Your task to perform on an android device: Open Chrome and go to settings Image 0: 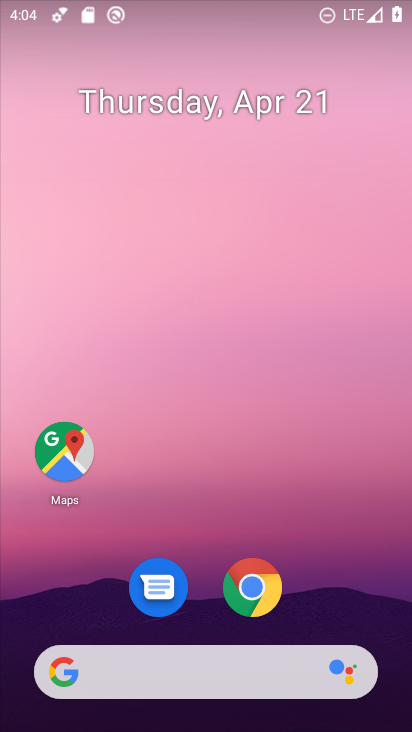
Step 0: click (250, 581)
Your task to perform on an android device: Open Chrome and go to settings Image 1: 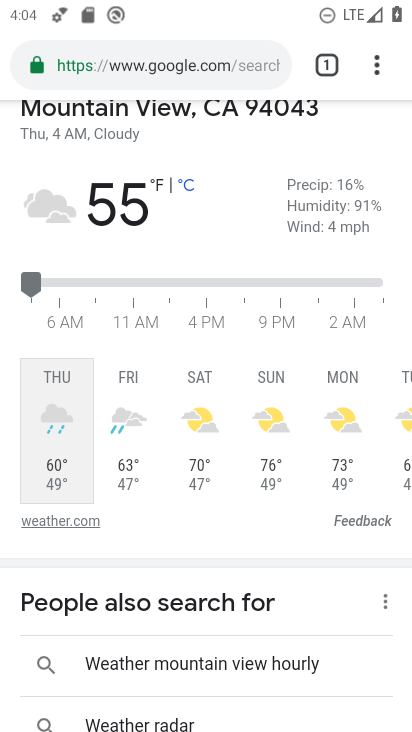
Step 1: click (380, 65)
Your task to perform on an android device: Open Chrome and go to settings Image 2: 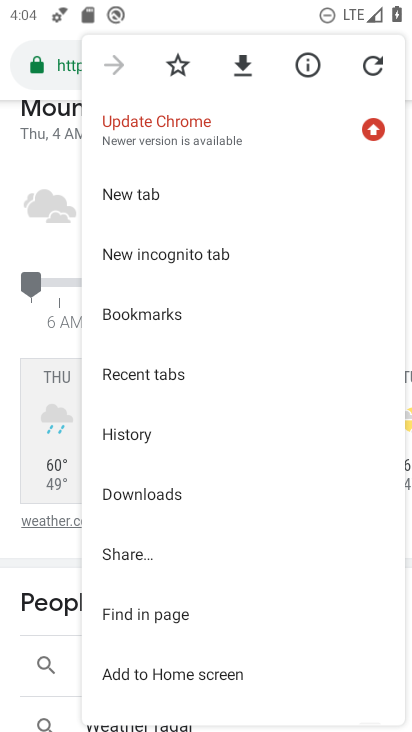
Step 2: drag from (243, 637) to (260, 392)
Your task to perform on an android device: Open Chrome and go to settings Image 3: 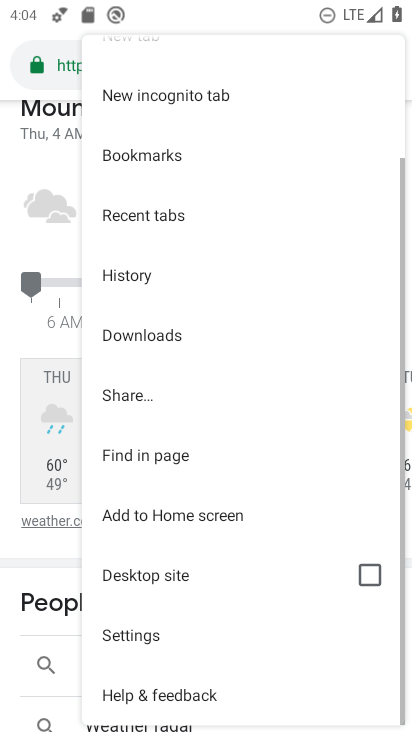
Step 3: click (124, 634)
Your task to perform on an android device: Open Chrome and go to settings Image 4: 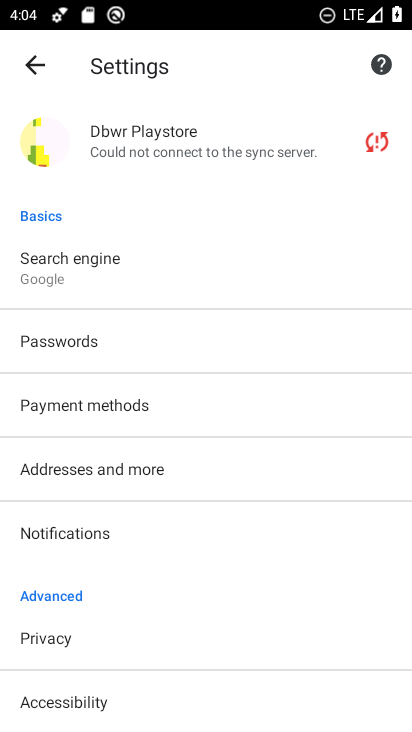
Step 4: task complete